Your task to perform on an android device: Open display settings Image 0: 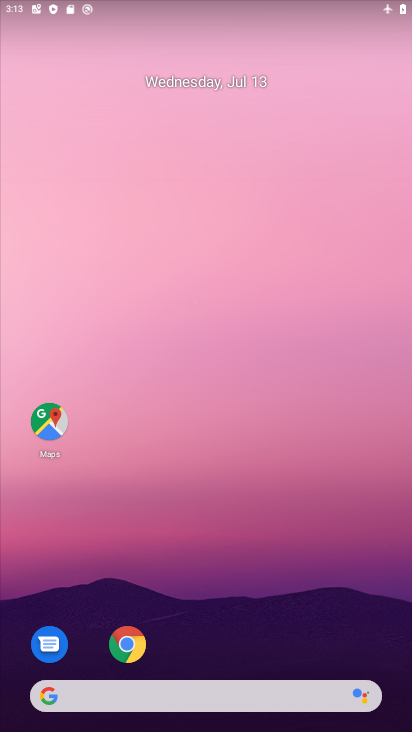
Step 0: drag from (319, 646) to (251, 206)
Your task to perform on an android device: Open display settings Image 1: 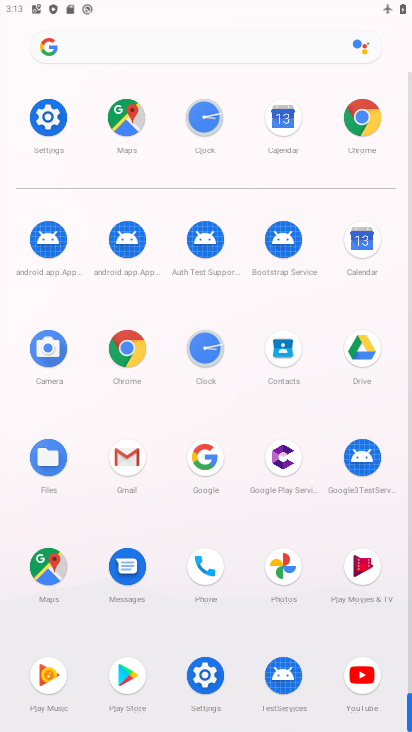
Step 1: click (48, 111)
Your task to perform on an android device: Open display settings Image 2: 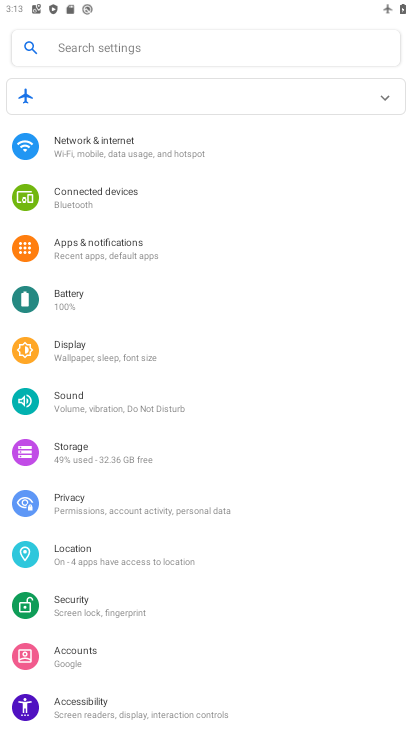
Step 2: click (140, 360)
Your task to perform on an android device: Open display settings Image 3: 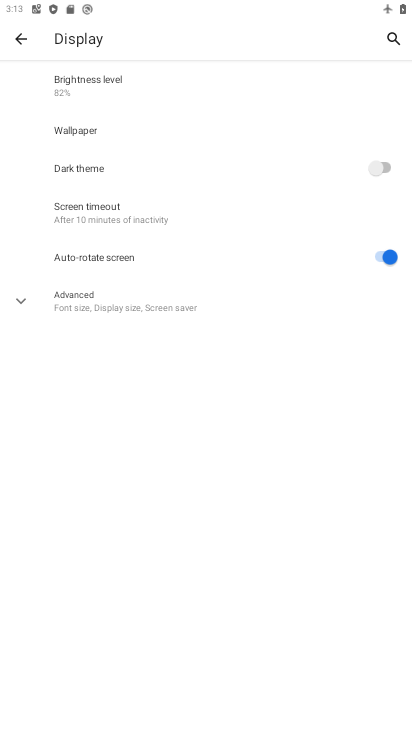
Step 3: task complete